Your task to perform on an android device: Go to calendar. Show me events next week Image 0: 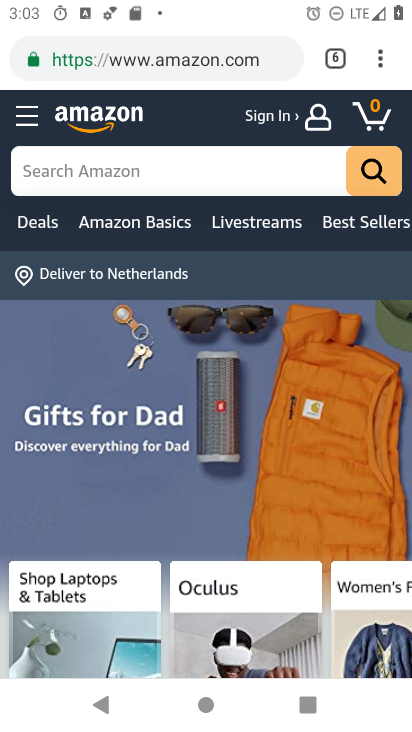
Step 0: press home button
Your task to perform on an android device: Go to calendar. Show me events next week Image 1: 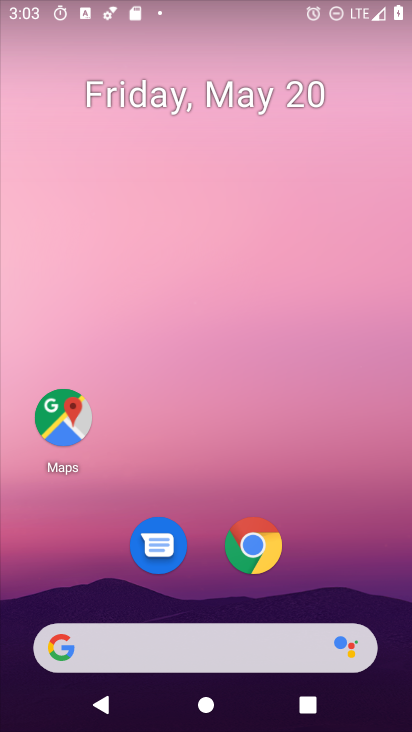
Step 1: drag from (220, 627) to (291, 85)
Your task to perform on an android device: Go to calendar. Show me events next week Image 2: 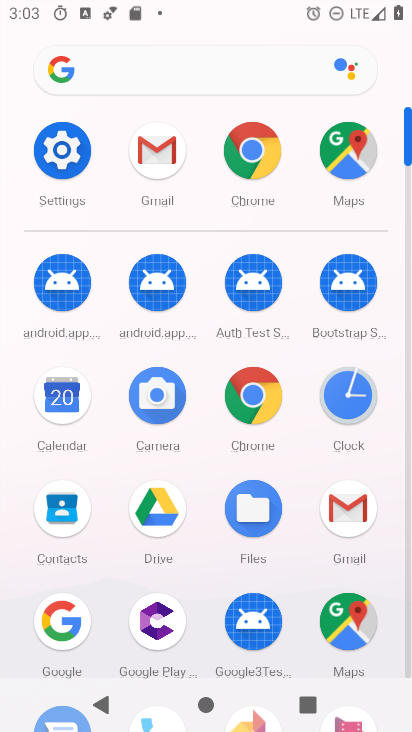
Step 2: click (70, 385)
Your task to perform on an android device: Go to calendar. Show me events next week Image 3: 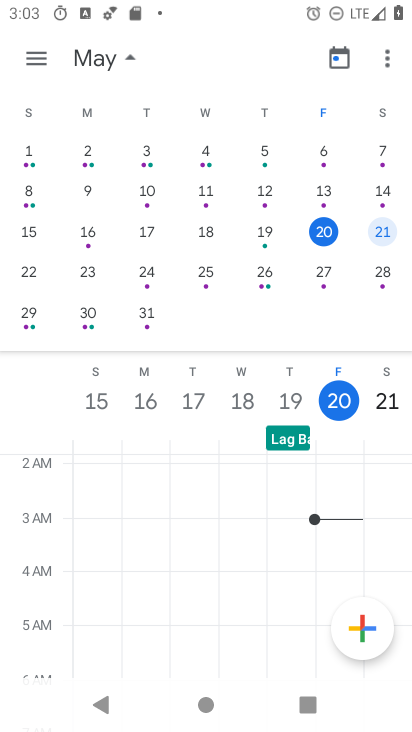
Step 3: task complete